Your task to perform on an android device: turn on javascript in the chrome app Image 0: 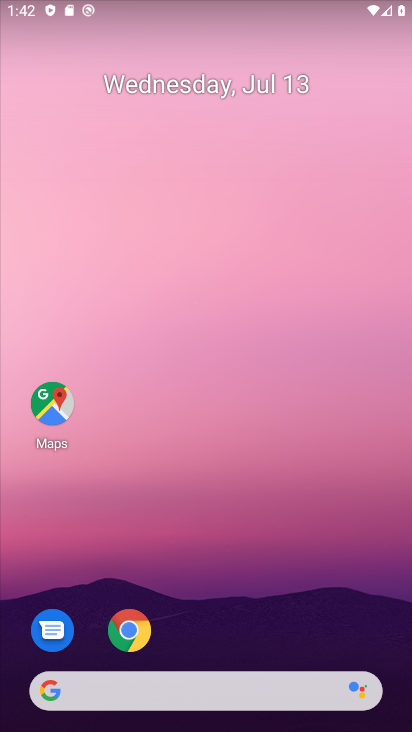
Step 0: click (134, 622)
Your task to perform on an android device: turn on javascript in the chrome app Image 1: 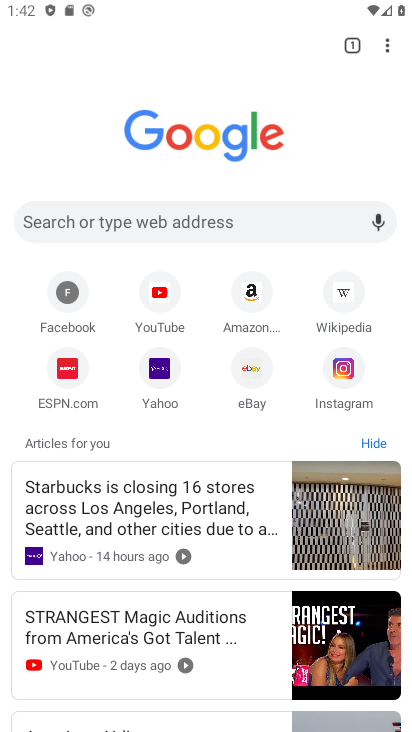
Step 1: click (390, 37)
Your task to perform on an android device: turn on javascript in the chrome app Image 2: 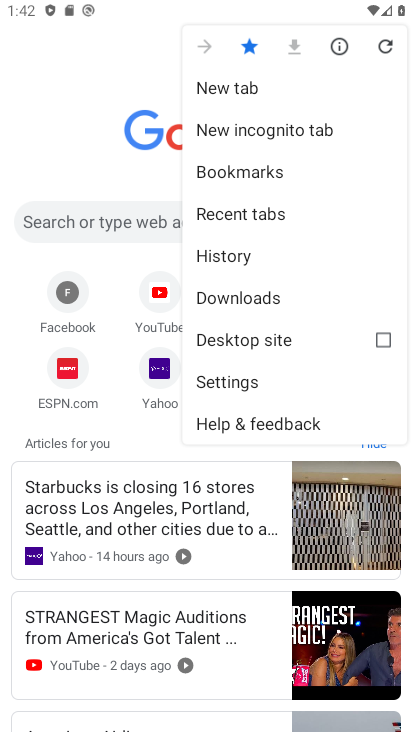
Step 2: click (247, 382)
Your task to perform on an android device: turn on javascript in the chrome app Image 3: 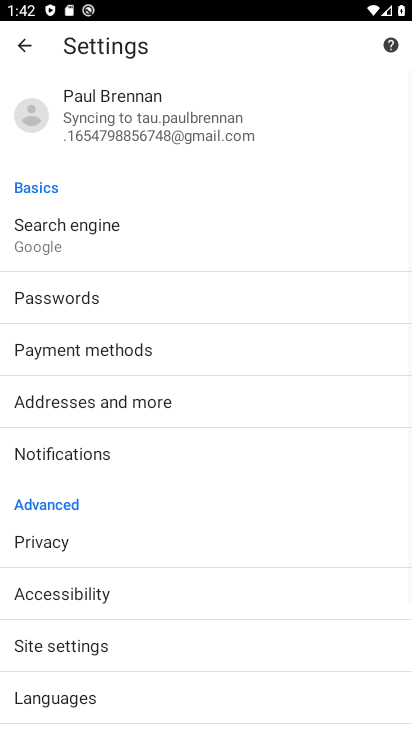
Step 3: drag from (180, 603) to (170, 354)
Your task to perform on an android device: turn on javascript in the chrome app Image 4: 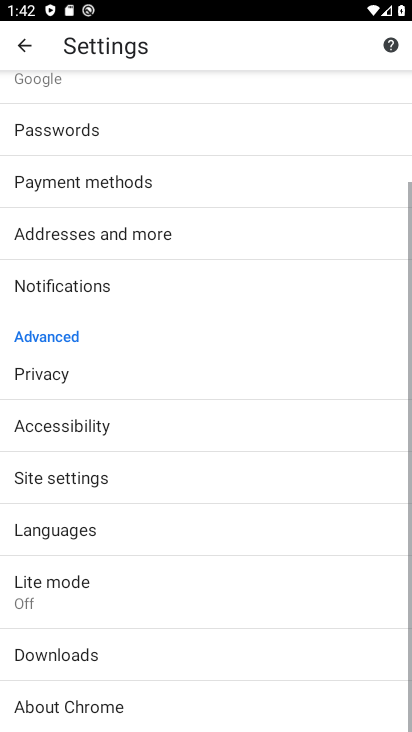
Step 4: click (74, 480)
Your task to perform on an android device: turn on javascript in the chrome app Image 5: 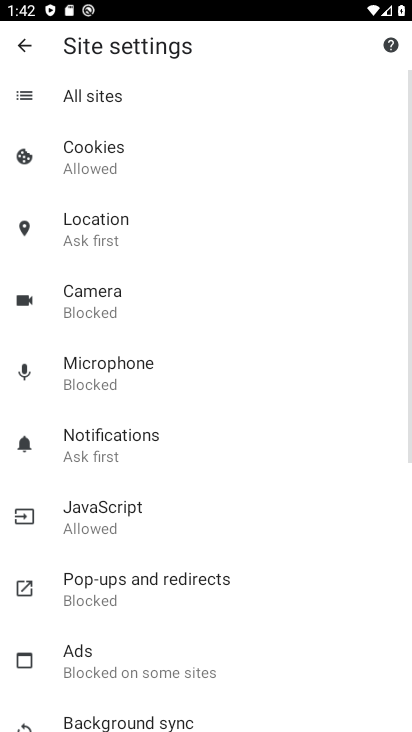
Step 5: click (164, 511)
Your task to perform on an android device: turn on javascript in the chrome app Image 6: 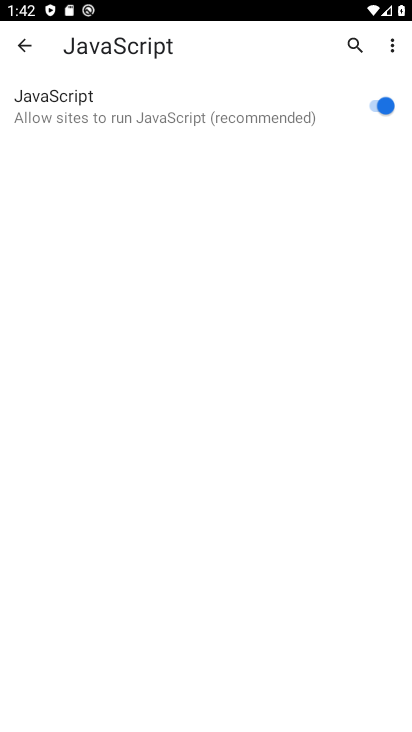
Step 6: task complete